Your task to perform on an android device: find snoozed emails in the gmail app Image 0: 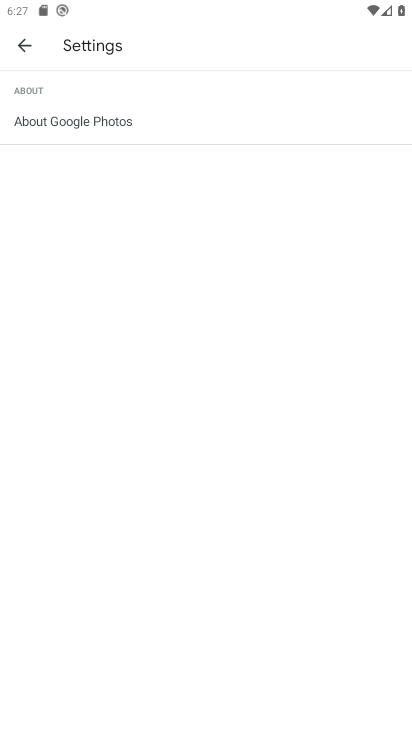
Step 0: press home button
Your task to perform on an android device: find snoozed emails in the gmail app Image 1: 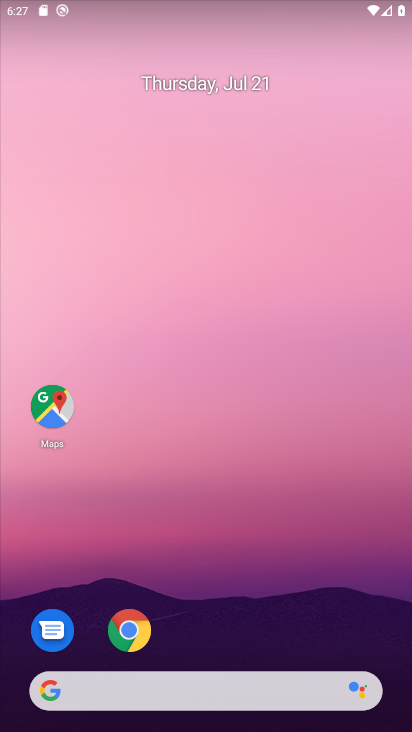
Step 1: drag from (244, 691) to (272, 236)
Your task to perform on an android device: find snoozed emails in the gmail app Image 2: 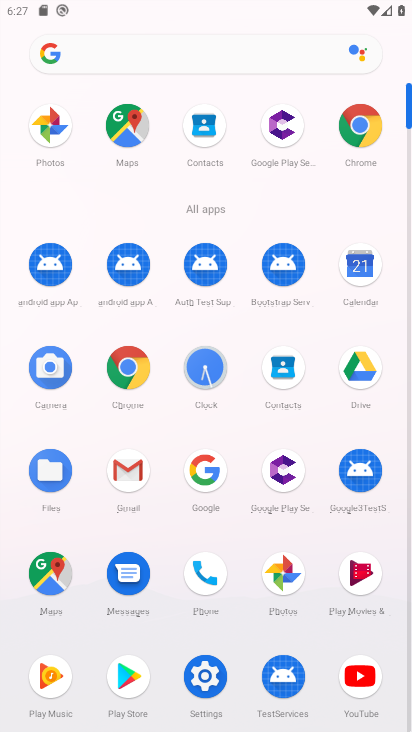
Step 2: click (125, 467)
Your task to perform on an android device: find snoozed emails in the gmail app Image 3: 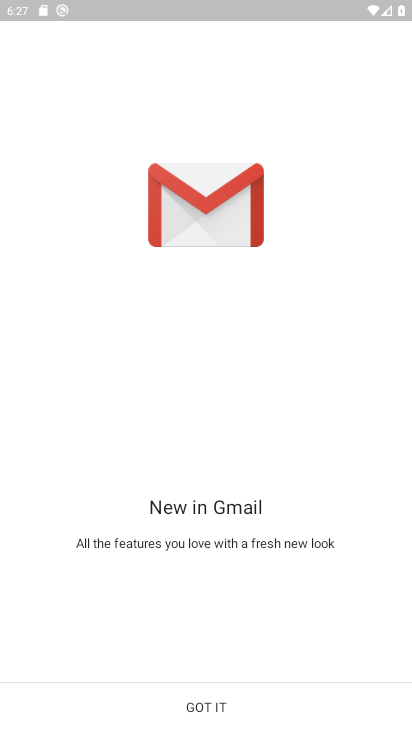
Step 3: click (214, 716)
Your task to perform on an android device: find snoozed emails in the gmail app Image 4: 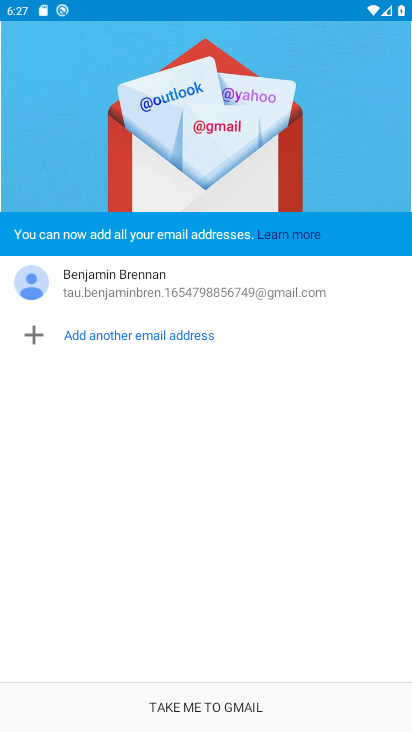
Step 4: click (212, 705)
Your task to perform on an android device: find snoozed emails in the gmail app Image 5: 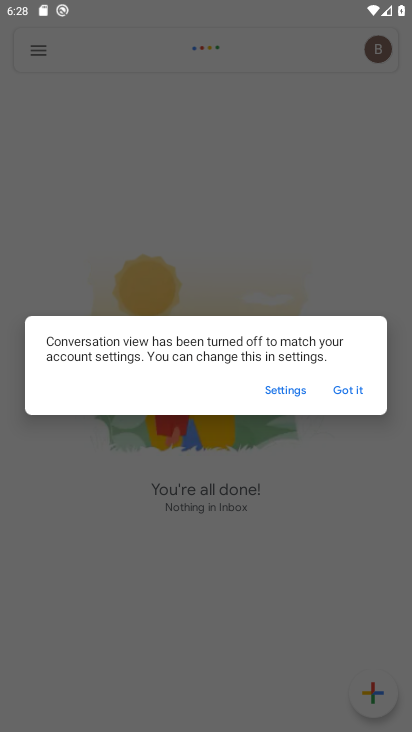
Step 5: click (350, 392)
Your task to perform on an android device: find snoozed emails in the gmail app Image 6: 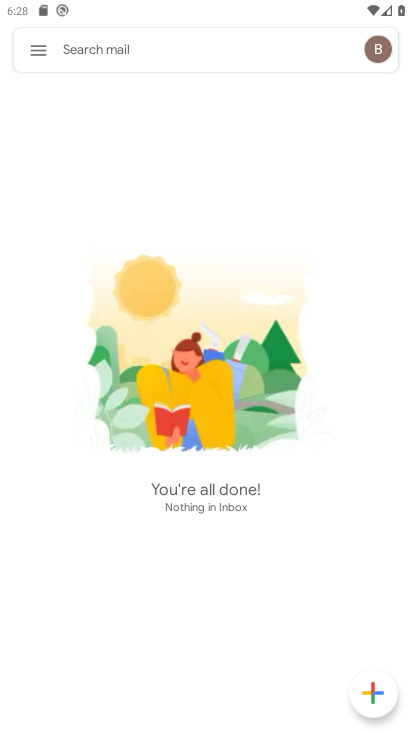
Step 6: click (38, 47)
Your task to perform on an android device: find snoozed emails in the gmail app Image 7: 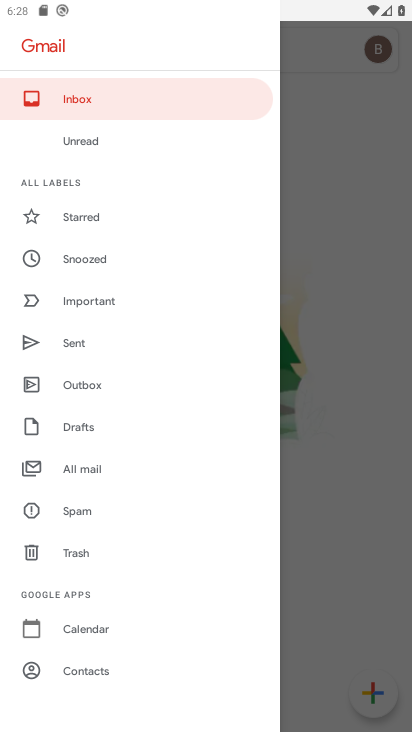
Step 7: click (94, 256)
Your task to perform on an android device: find snoozed emails in the gmail app Image 8: 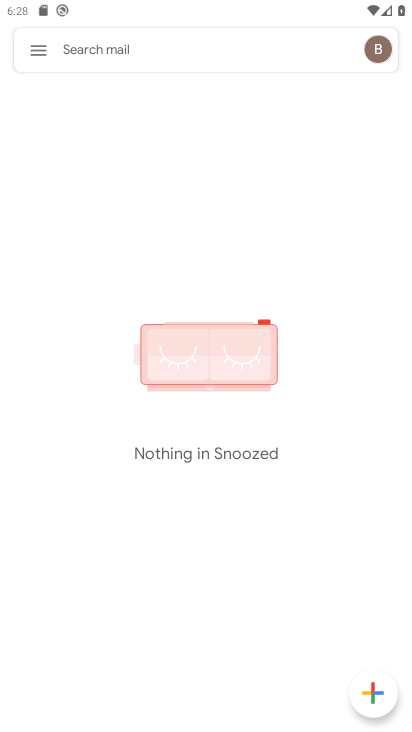
Step 8: click (31, 44)
Your task to perform on an android device: find snoozed emails in the gmail app Image 9: 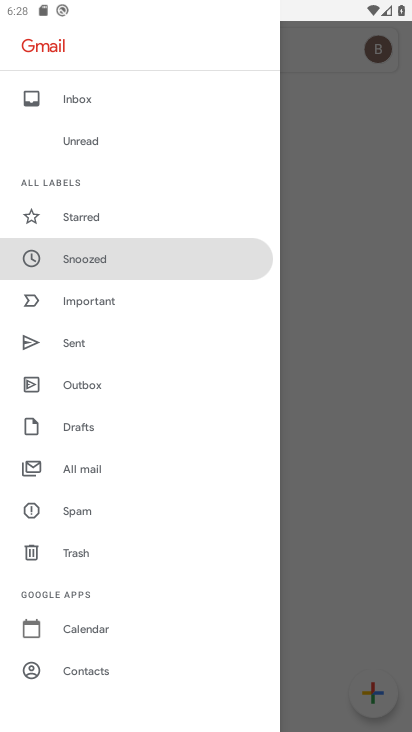
Step 9: click (104, 299)
Your task to perform on an android device: find snoozed emails in the gmail app Image 10: 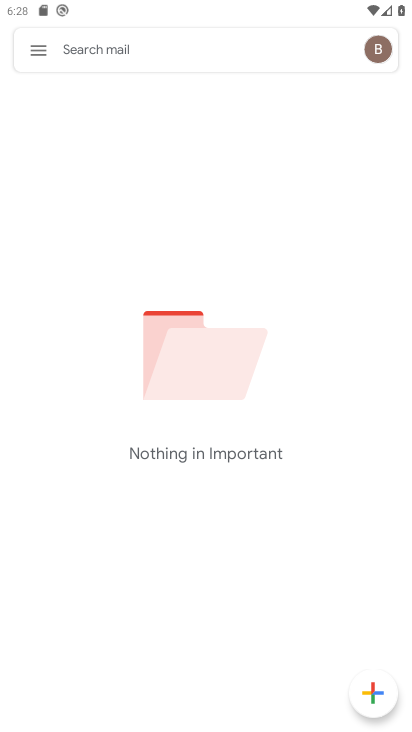
Step 10: click (38, 50)
Your task to perform on an android device: find snoozed emails in the gmail app Image 11: 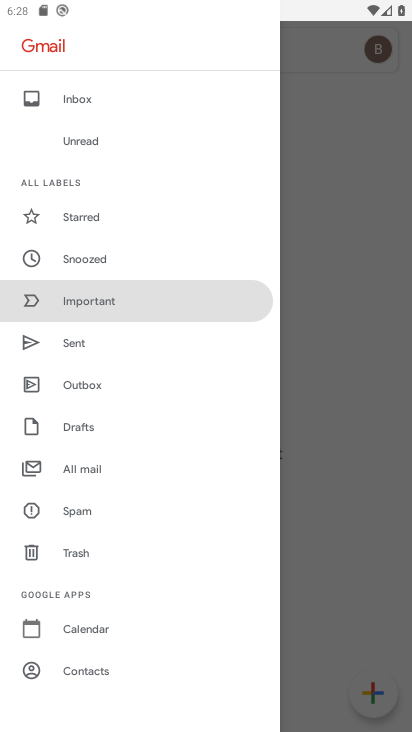
Step 11: click (59, 340)
Your task to perform on an android device: find snoozed emails in the gmail app Image 12: 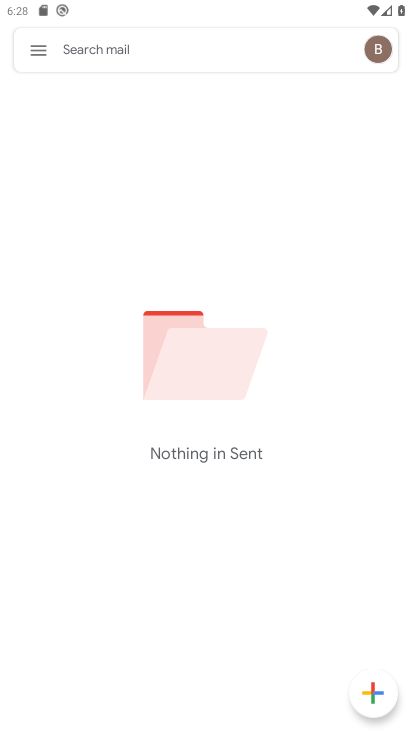
Step 12: click (38, 48)
Your task to perform on an android device: find snoozed emails in the gmail app Image 13: 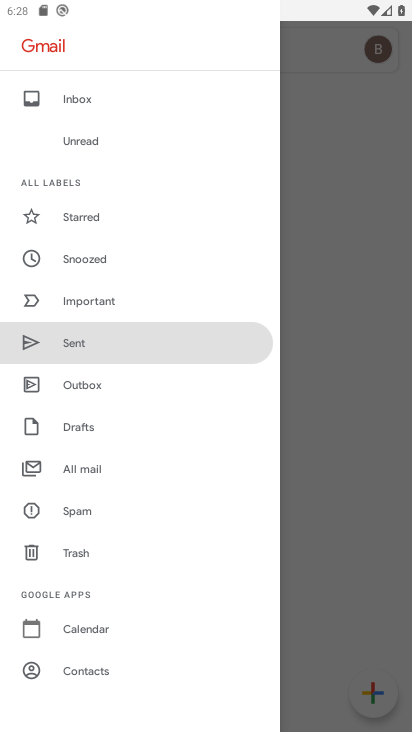
Step 13: click (68, 378)
Your task to perform on an android device: find snoozed emails in the gmail app Image 14: 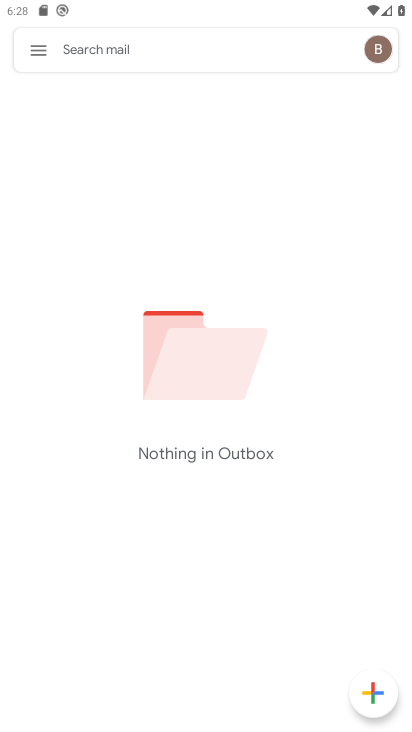
Step 14: click (36, 51)
Your task to perform on an android device: find snoozed emails in the gmail app Image 15: 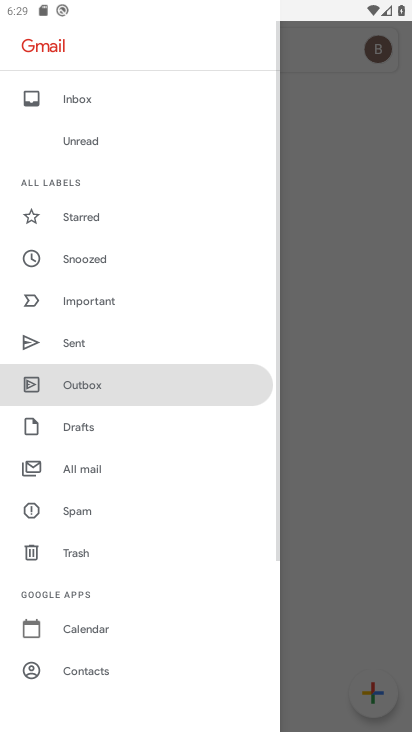
Step 15: click (95, 435)
Your task to perform on an android device: find snoozed emails in the gmail app Image 16: 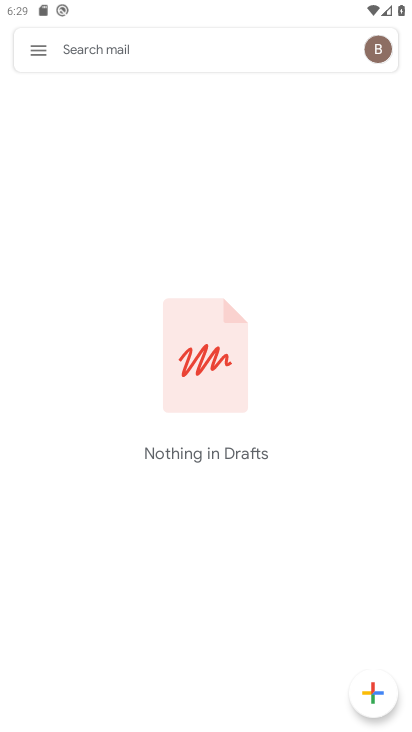
Step 16: task complete